Your task to perform on an android device: Search for corsair k70 on costco.com, select the first entry, and add it to the cart. Image 0: 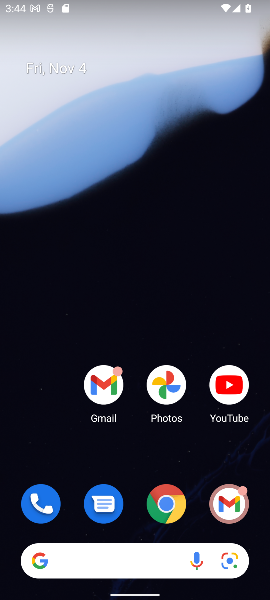
Step 0: click (172, 515)
Your task to perform on an android device: Search for corsair k70 on costco.com, select the first entry, and add it to the cart. Image 1: 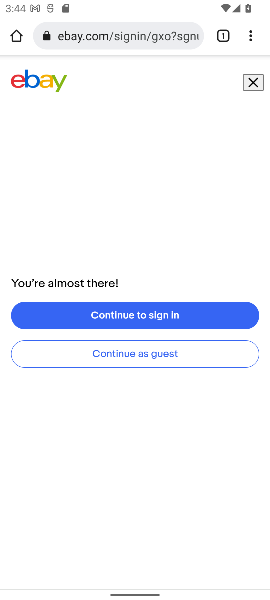
Step 1: click (108, 46)
Your task to perform on an android device: Search for corsair k70 on costco.com, select the first entry, and add it to the cart. Image 2: 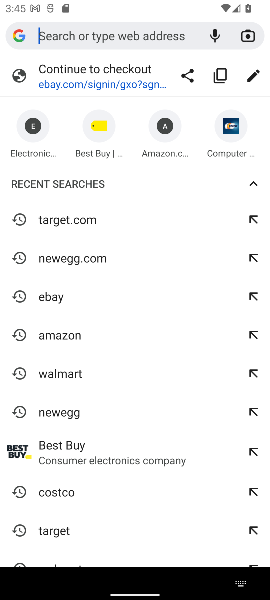
Step 2: click (64, 491)
Your task to perform on an android device: Search for corsair k70 on costco.com, select the first entry, and add it to the cart. Image 3: 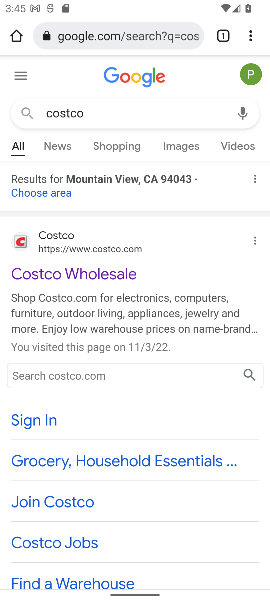
Step 3: click (77, 282)
Your task to perform on an android device: Search for corsair k70 on costco.com, select the first entry, and add it to the cart. Image 4: 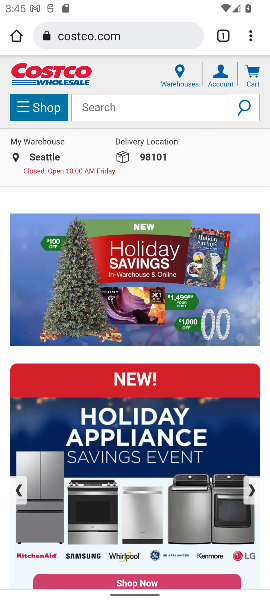
Step 4: click (109, 111)
Your task to perform on an android device: Search for corsair k70 on costco.com, select the first entry, and add it to the cart. Image 5: 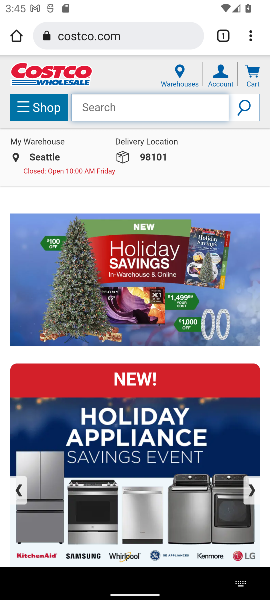
Step 5: type "corsair k70 "
Your task to perform on an android device: Search for corsair k70 on costco.com, select the first entry, and add it to the cart. Image 6: 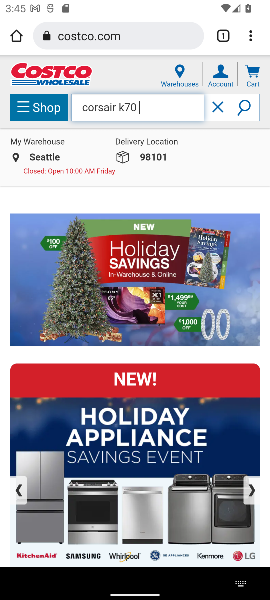
Step 6: click (246, 103)
Your task to perform on an android device: Search for corsair k70 on costco.com, select the first entry, and add it to the cart. Image 7: 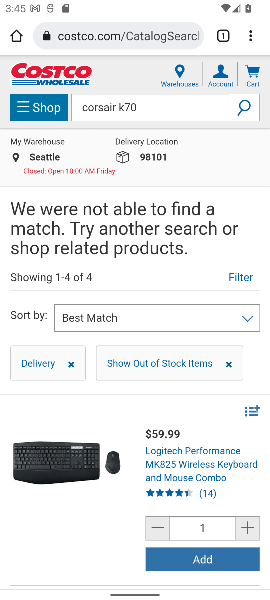
Step 7: task complete